Your task to perform on an android device: change the upload size in google photos Image 0: 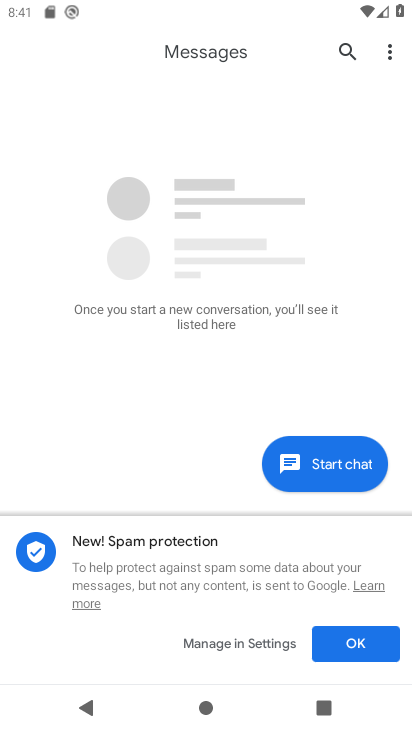
Step 0: press home button
Your task to perform on an android device: change the upload size in google photos Image 1: 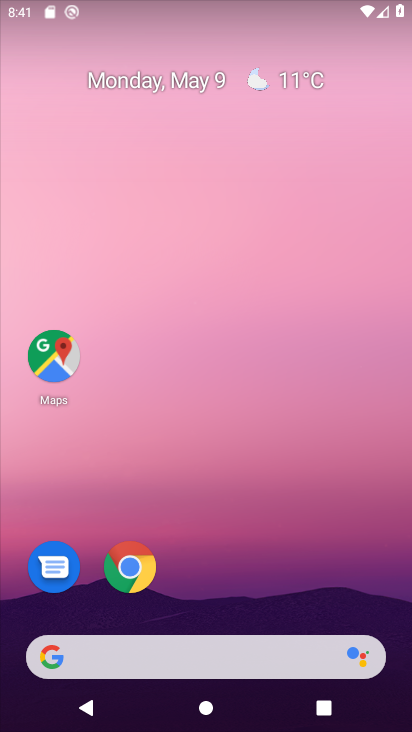
Step 1: drag from (257, 527) to (202, 34)
Your task to perform on an android device: change the upload size in google photos Image 2: 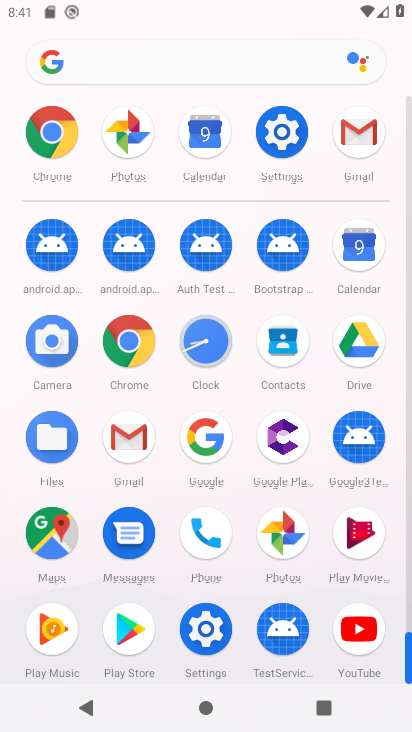
Step 2: click (284, 525)
Your task to perform on an android device: change the upload size in google photos Image 3: 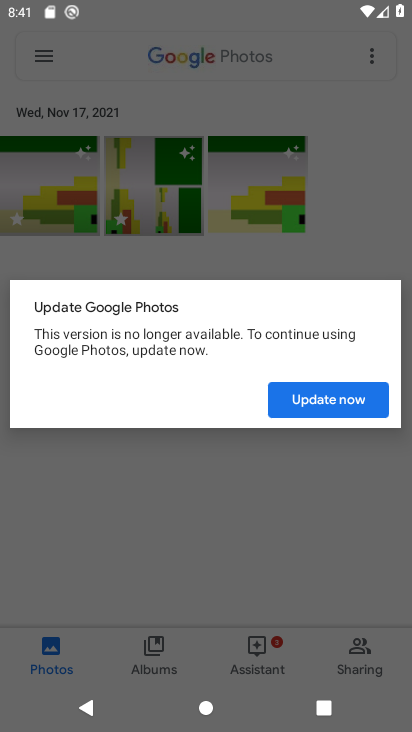
Step 3: click (306, 398)
Your task to perform on an android device: change the upload size in google photos Image 4: 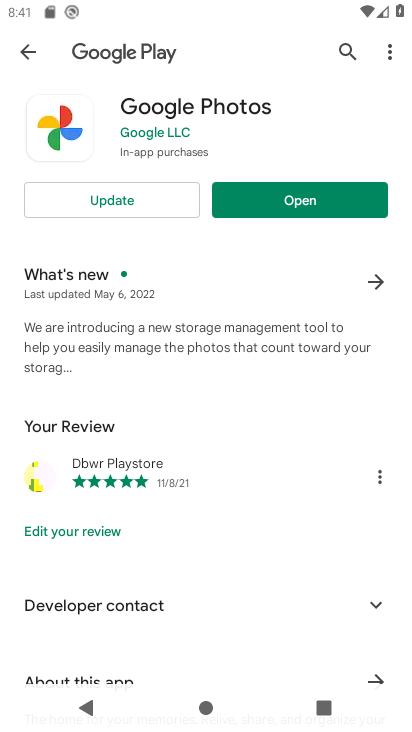
Step 4: click (157, 194)
Your task to perform on an android device: change the upload size in google photos Image 5: 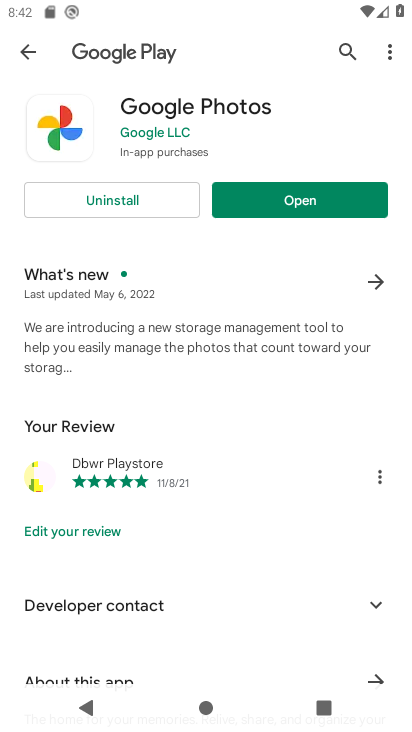
Step 5: click (326, 197)
Your task to perform on an android device: change the upload size in google photos Image 6: 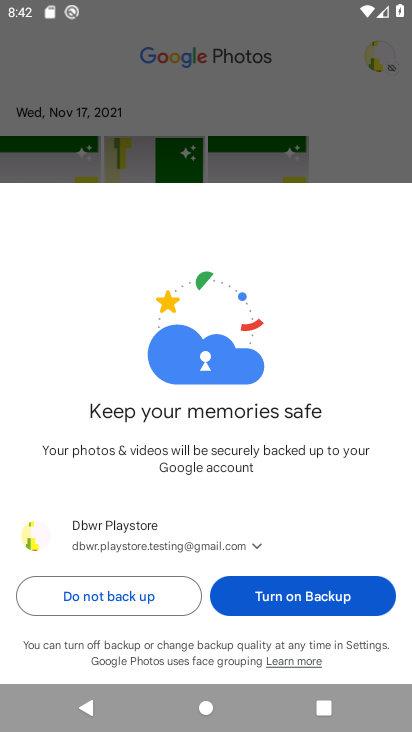
Step 6: click (238, 593)
Your task to perform on an android device: change the upload size in google photos Image 7: 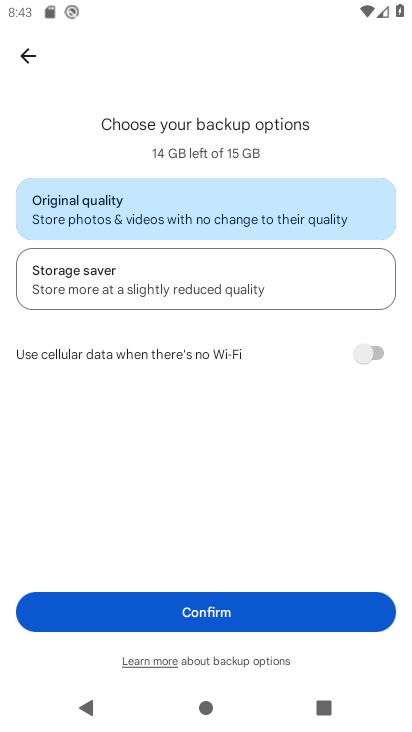
Step 7: click (240, 271)
Your task to perform on an android device: change the upload size in google photos Image 8: 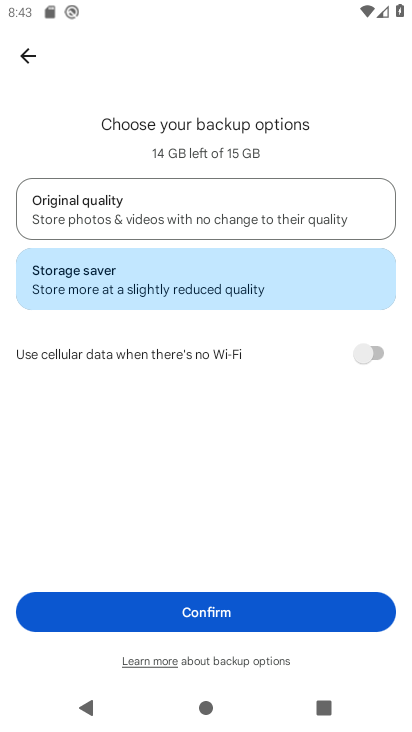
Step 8: click (236, 604)
Your task to perform on an android device: change the upload size in google photos Image 9: 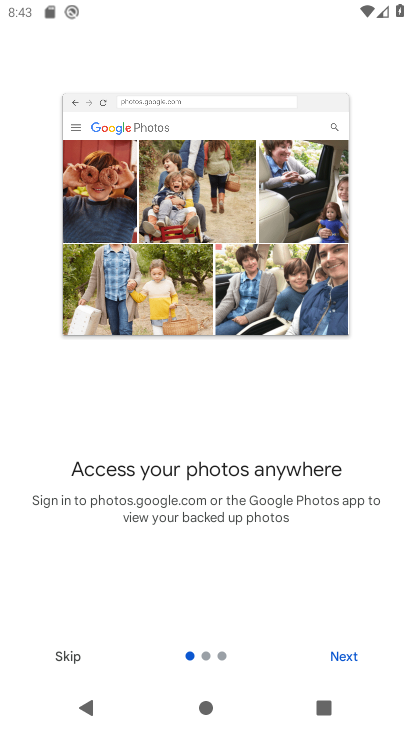
Step 9: click (344, 648)
Your task to perform on an android device: change the upload size in google photos Image 10: 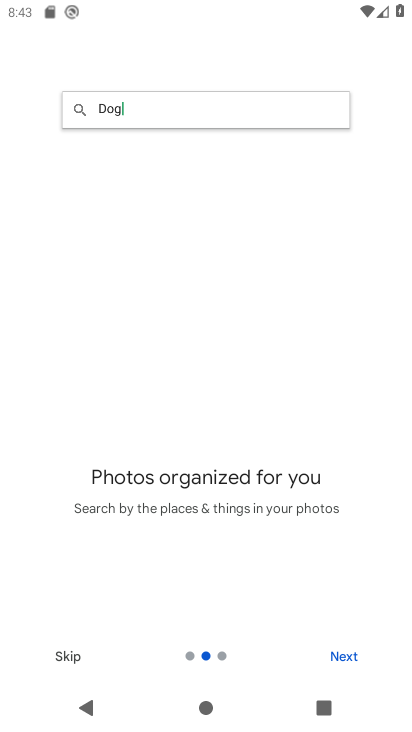
Step 10: click (345, 649)
Your task to perform on an android device: change the upload size in google photos Image 11: 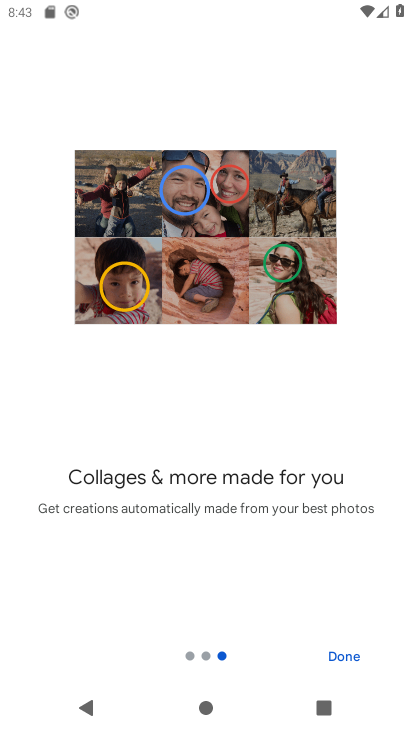
Step 11: click (345, 649)
Your task to perform on an android device: change the upload size in google photos Image 12: 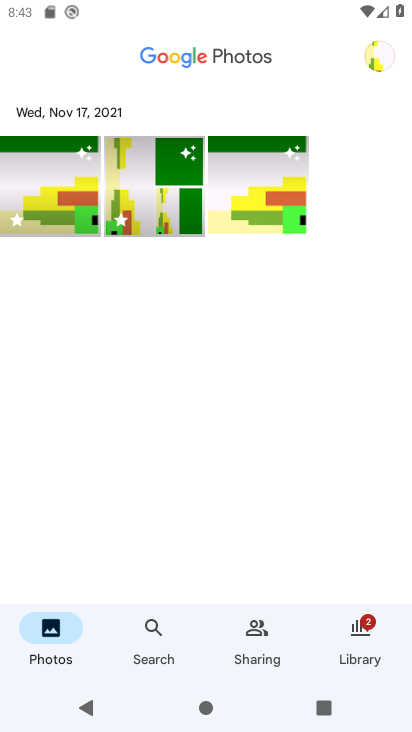
Step 12: task complete